Your task to perform on an android device: Show me the alarms in the clock app Image 0: 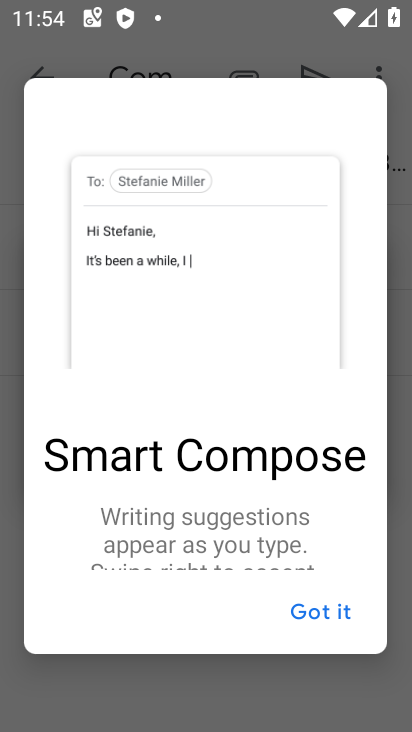
Step 0: press home button
Your task to perform on an android device: Show me the alarms in the clock app Image 1: 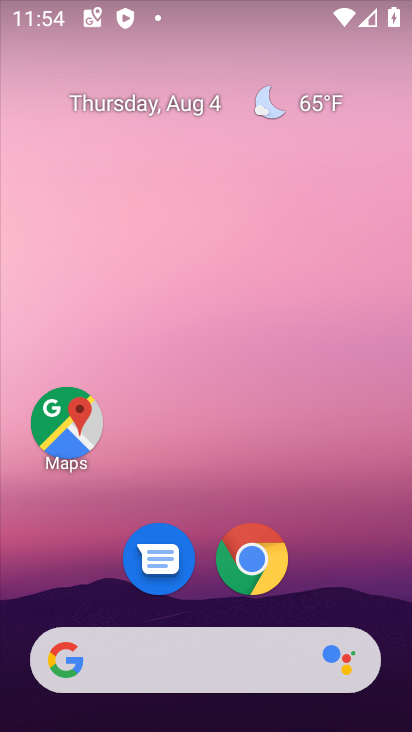
Step 1: drag from (252, 716) to (277, 6)
Your task to perform on an android device: Show me the alarms in the clock app Image 2: 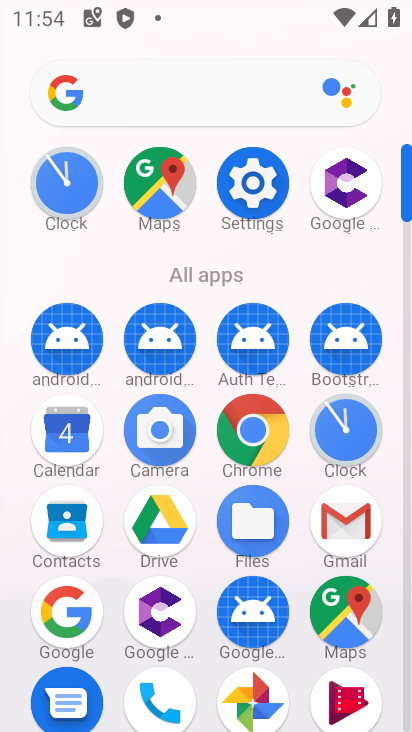
Step 2: click (62, 175)
Your task to perform on an android device: Show me the alarms in the clock app Image 3: 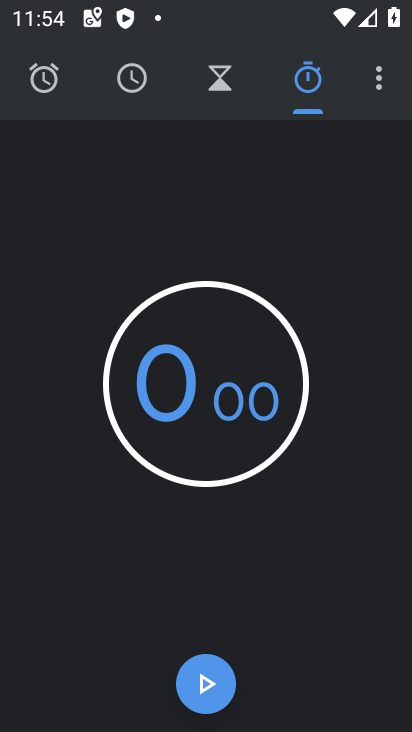
Step 3: click (62, 71)
Your task to perform on an android device: Show me the alarms in the clock app Image 4: 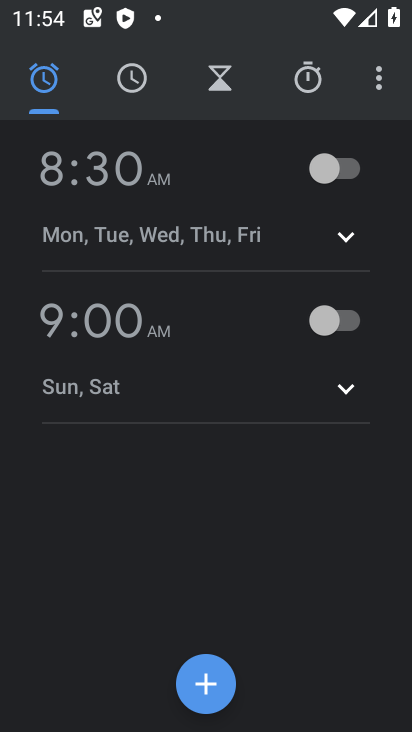
Step 4: task complete